Your task to perform on an android device: clear history in the chrome app Image 0: 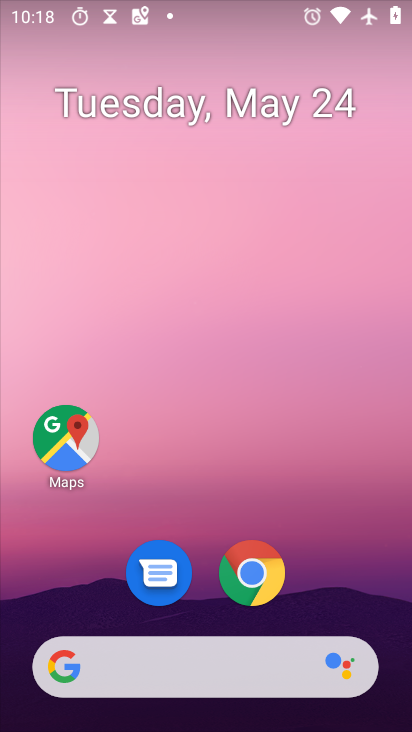
Step 0: drag from (362, 498) to (345, 8)
Your task to perform on an android device: clear history in the chrome app Image 1: 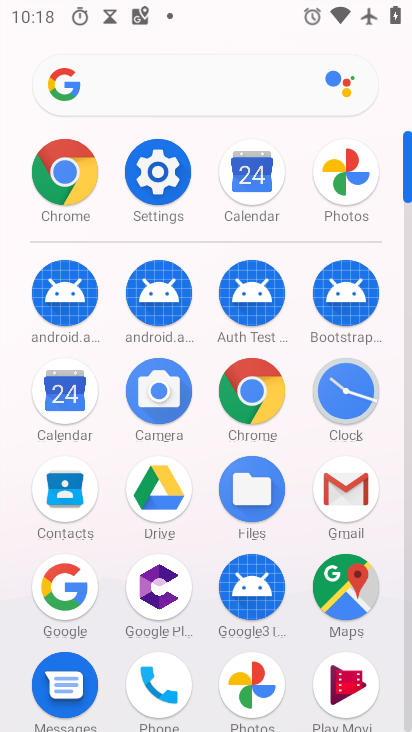
Step 1: click (24, 171)
Your task to perform on an android device: clear history in the chrome app Image 2: 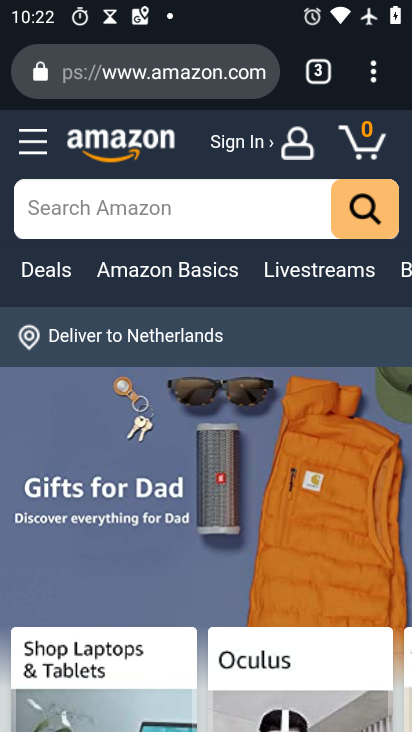
Step 2: drag from (388, 75) to (114, 415)
Your task to perform on an android device: clear history in the chrome app Image 3: 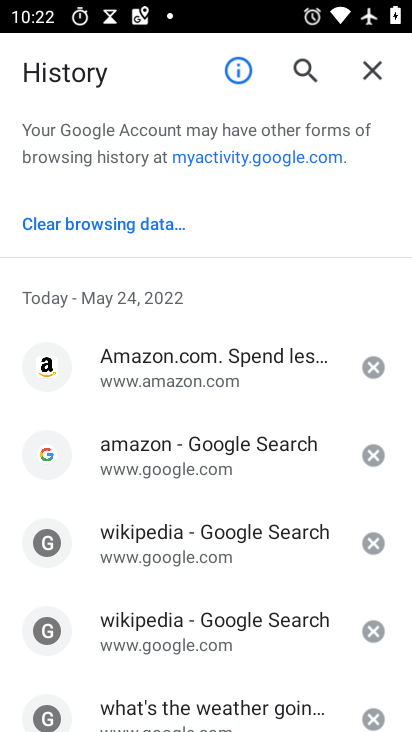
Step 3: click (105, 217)
Your task to perform on an android device: clear history in the chrome app Image 4: 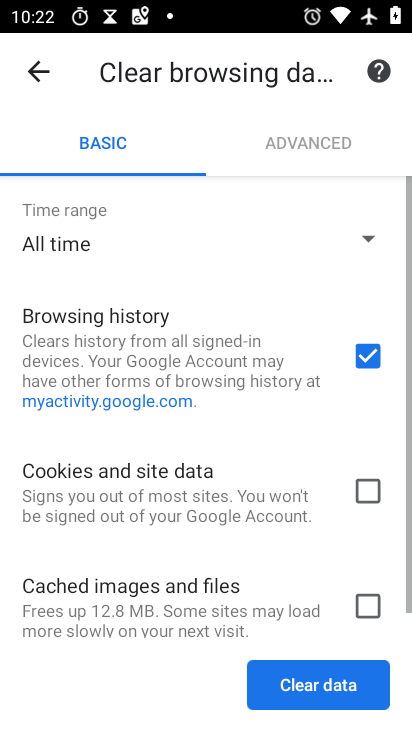
Step 4: click (286, 685)
Your task to perform on an android device: clear history in the chrome app Image 5: 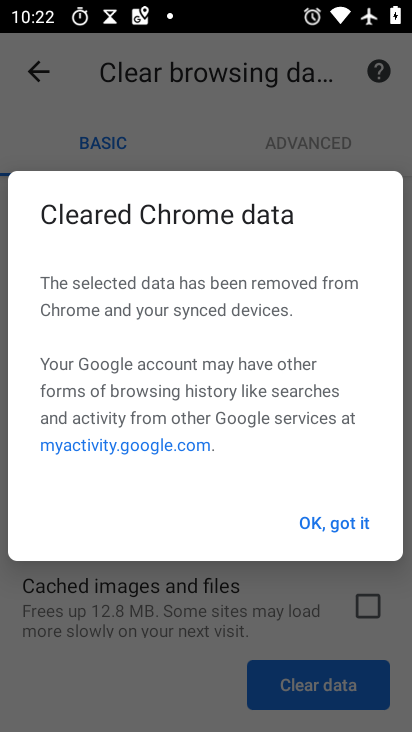
Step 5: task complete